Your task to perform on an android device: manage bookmarks in the chrome app Image 0: 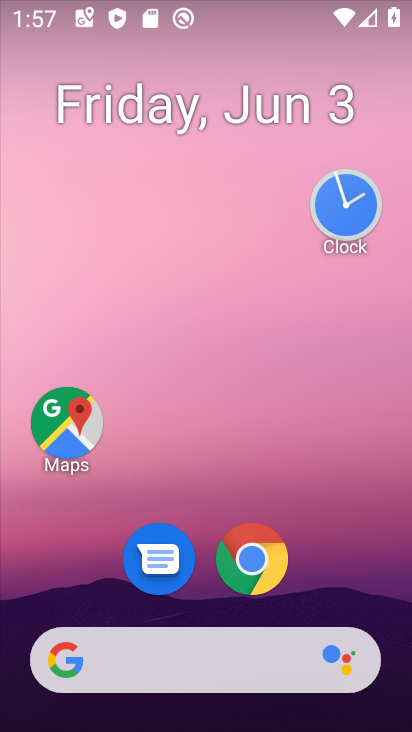
Step 0: click (275, 546)
Your task to perform on an android device: manage bookmarks in the chrome app Image 1: 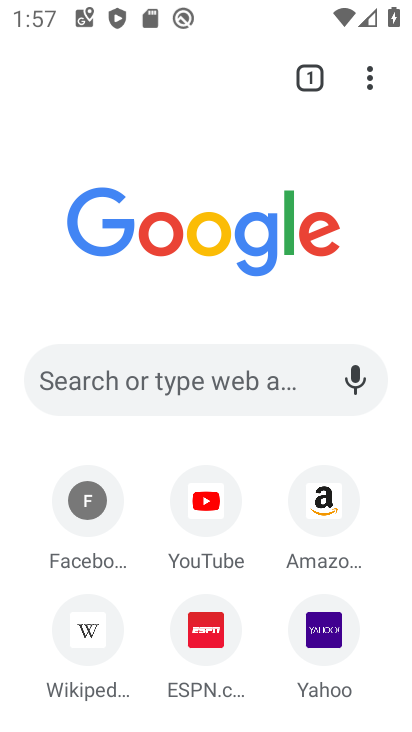
Step 1: click (373, 58)
Your task to perform on an android device: manage bookmarks in the chrome app Image 2: 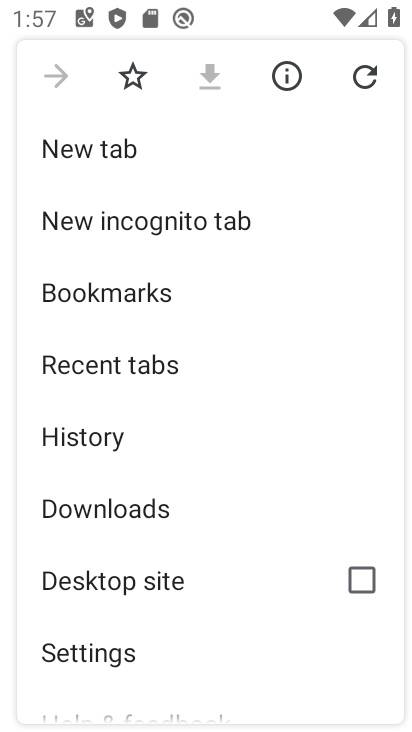
Step 2: click (217, 274)
Your task to perform on an android device: manage bookmarks in the chrome app Image 3: 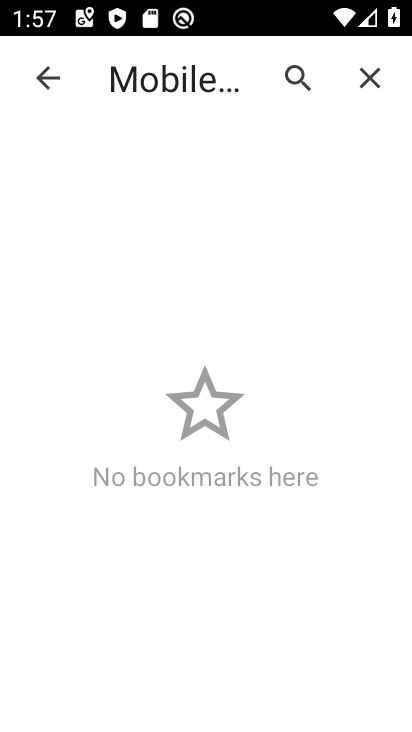
Step 3: task complete